Your task to perform on an android device: Open location settings Image 0: 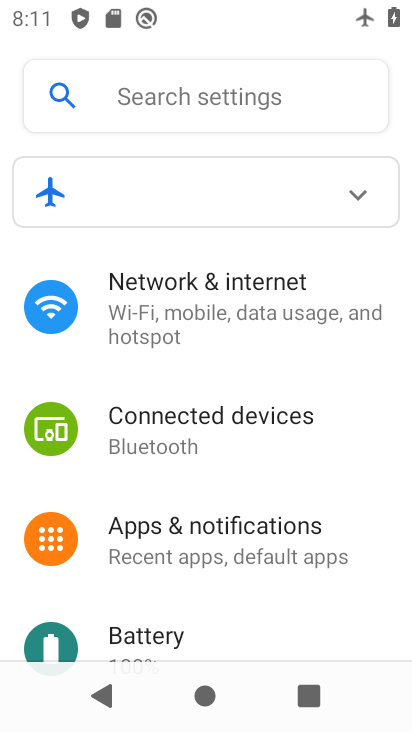
Step 0: drag from (187, 614) to (256, 75)
Your task to perform on an android device: Open location settings Image 1: 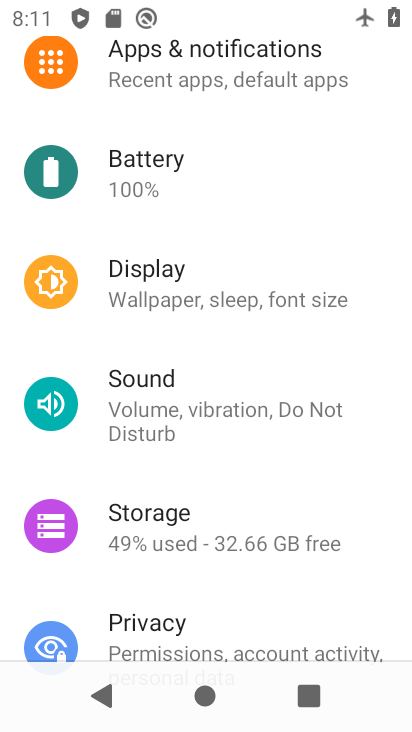
Step 1: drag from (138, 595) to (224, 54)
Your task to perform on an android device: Open location settings Image 2: 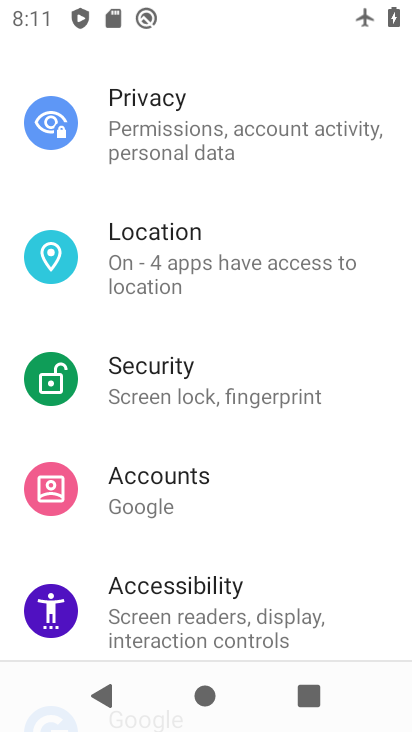
Step 2: click (165, 252)
Your task to perform on an android device: Open location settings Image 3: 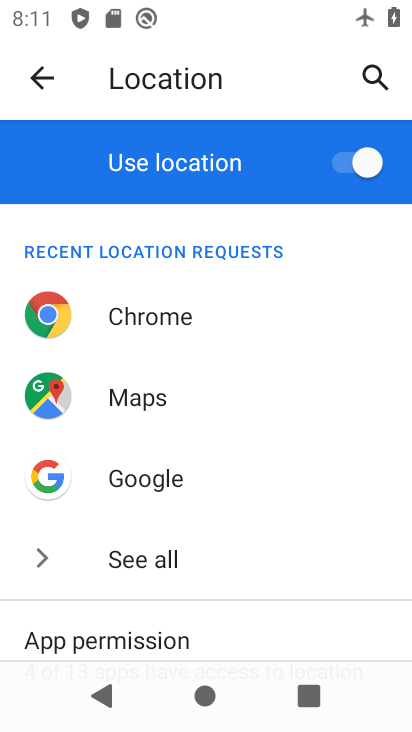
Step 3: task complete